Your task to perform on an android device: turn off priority inbox in the gmail app Image 0: 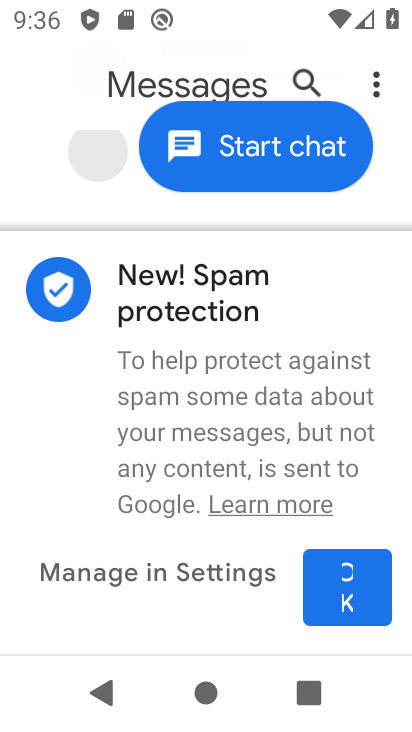
Step 0: press home button
Your task to perform on an android device: turn off priority inbox in the gmail app Image 1: 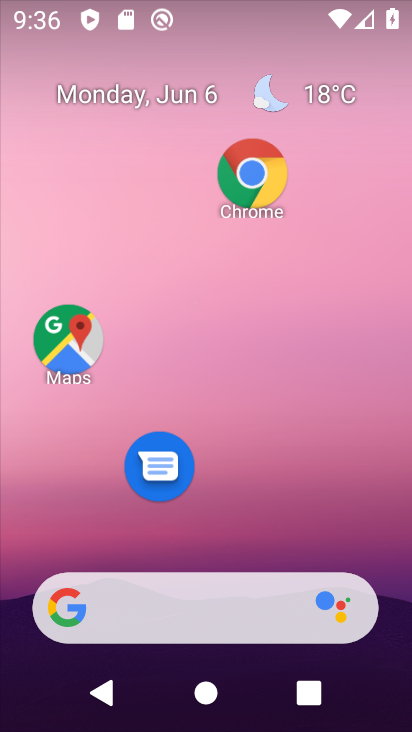
Step 1: drag from (222, 519) to (182, 6)
Your task to perform on an android device: turn off priority inbox in the gmail app Image 2: 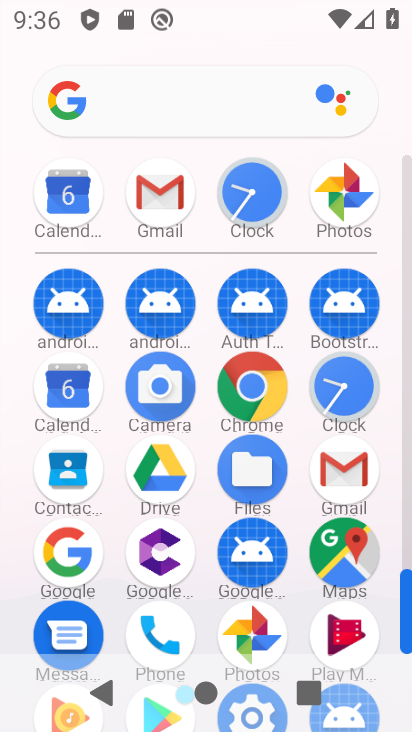
Step 2: click (162, 201)
Your task to perform on an android device: turn off priority inbox in the gmail app Image 3: 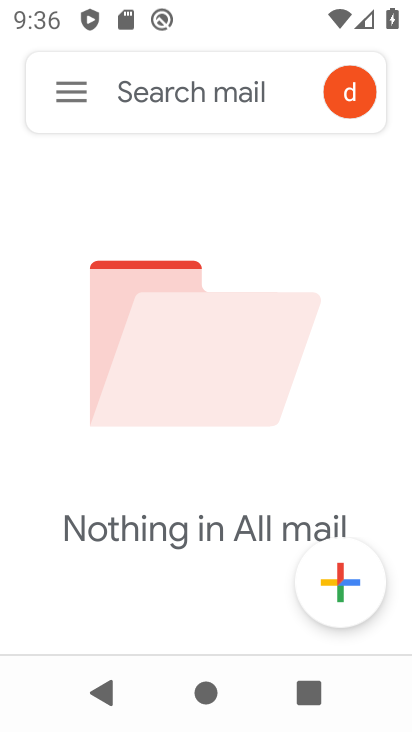
Step 3: click (71, 96)
Your task to perform on an android device: turn off priority inbox in the gmail app Image 4: 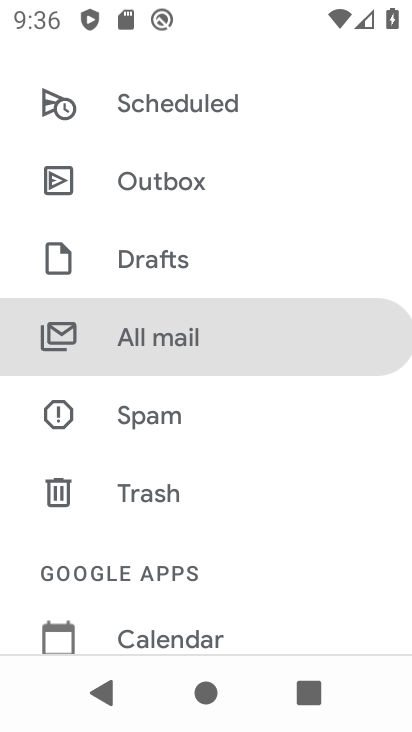
Step 4: drag from (148, 608) to (159, 385)
Your task to perform on an android device: turn off priority inbox in the gmail app Image 5: 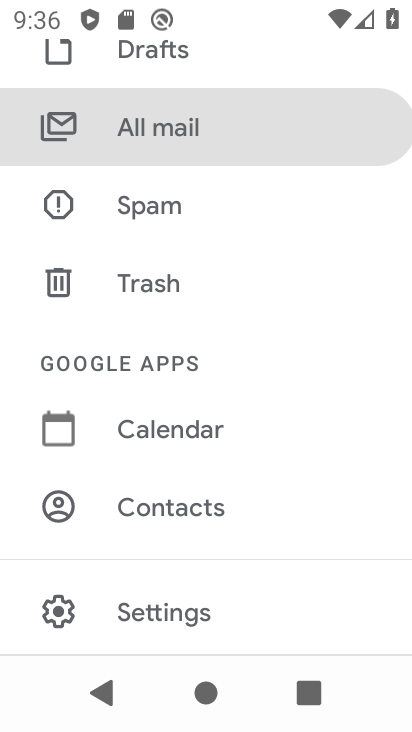
Step 5: drag from (164, 277) to (146, 705)
Your task to perform on an android device: turn off priority inbox in the gmail app Image 6: 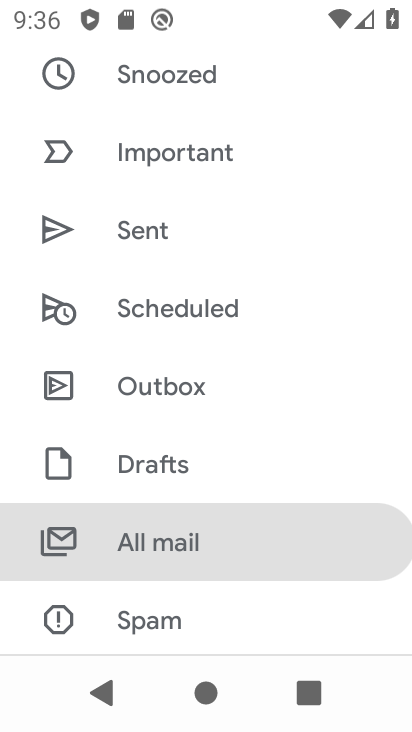
Step 6: drag from (144, 630) to (151, 97)
Your task to perform on an android device: turn off priority inbox in the gmail app Image 7: 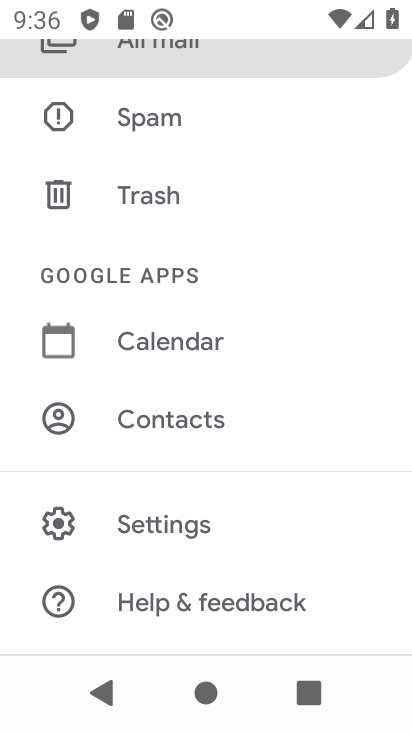
Step 7: click (139, 534)
Your task to perform on an android device: turn off priority inbox in the gmail app Image 8: 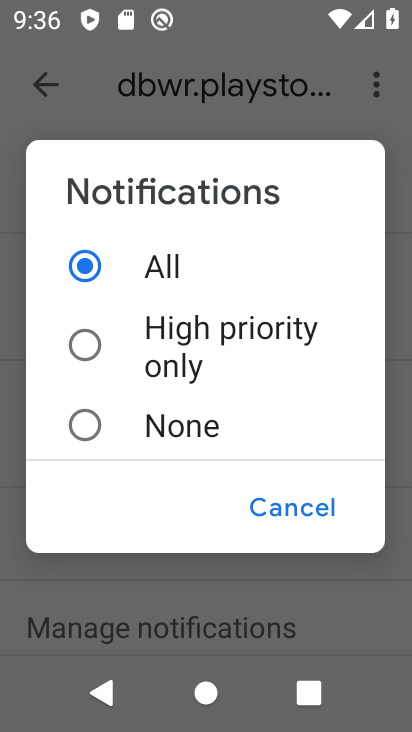
Step 8: click (308, 513)
Your task to perform on an android device: turn off priority inbox in the gmail app Image 9: 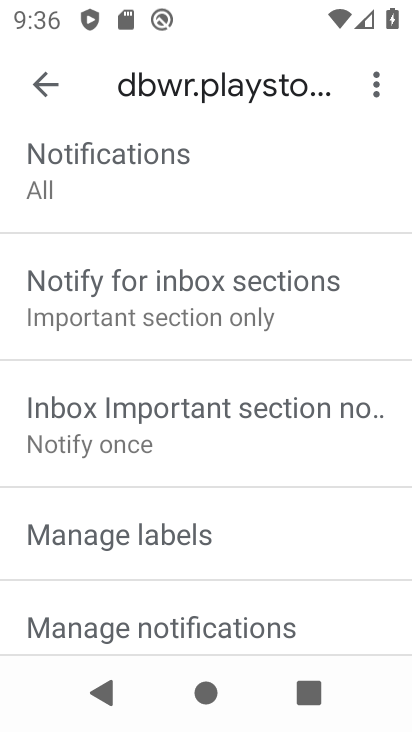
Step 9: drag from (122, 259) to (87, 725)
Your task to perform on an android device: turn off priority inbox in the gmail app Image 10: 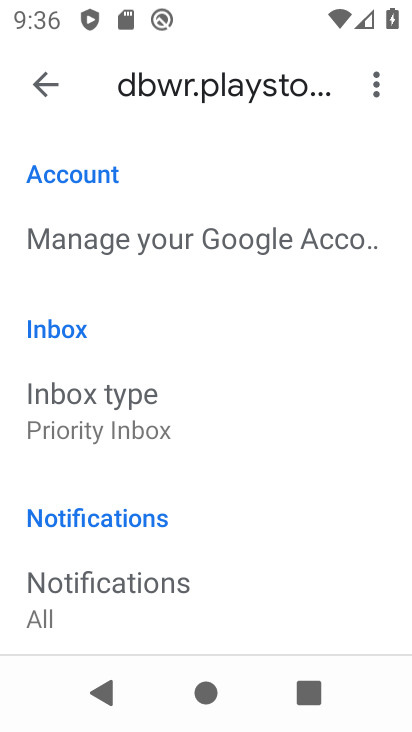
Step 10: click (93, 416)
Your task to perform on an android device: turn off priority inbox in the gmail app Image 11: 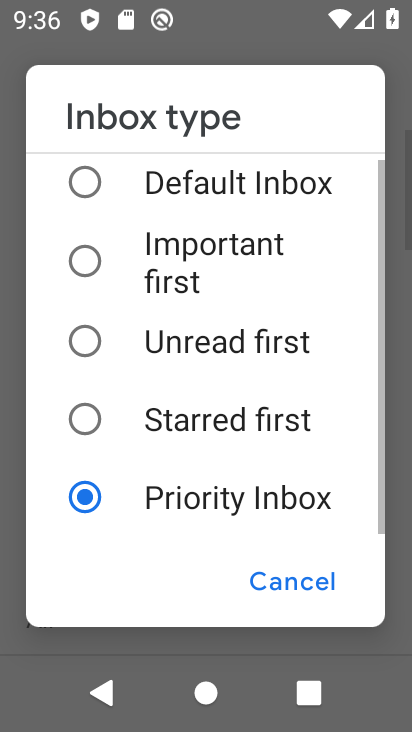
Step 11: click (89, 190)
Your task to perform on an android device: turn off priority inbox in the gmail app Image 12: 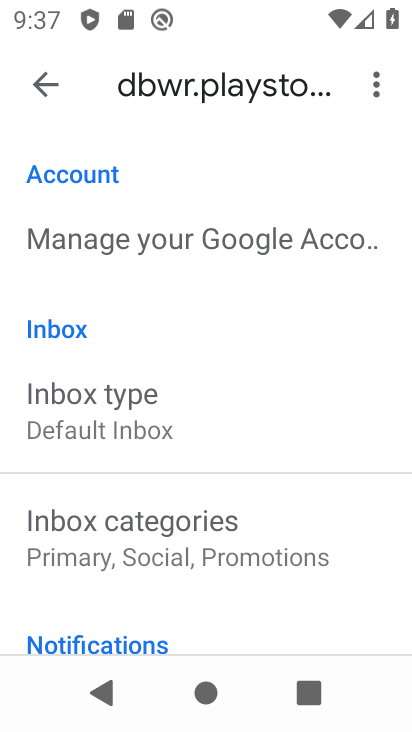
Step 12: task complete